Your task to perform on an android device: turn on wifi Image 0: 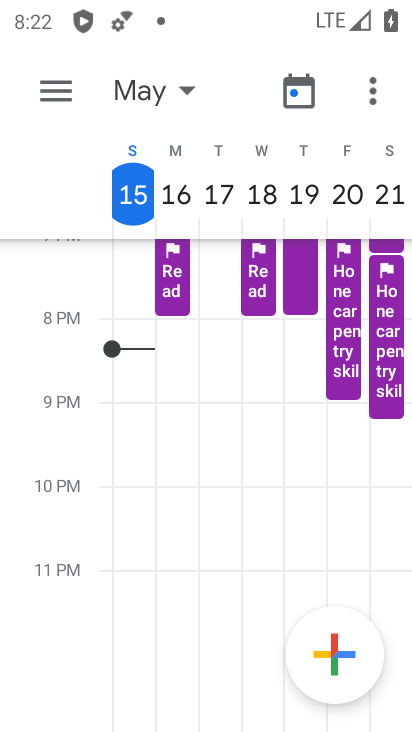
Step 0: press home button
Your task to perform on an android device: turn on wifi Image 1: 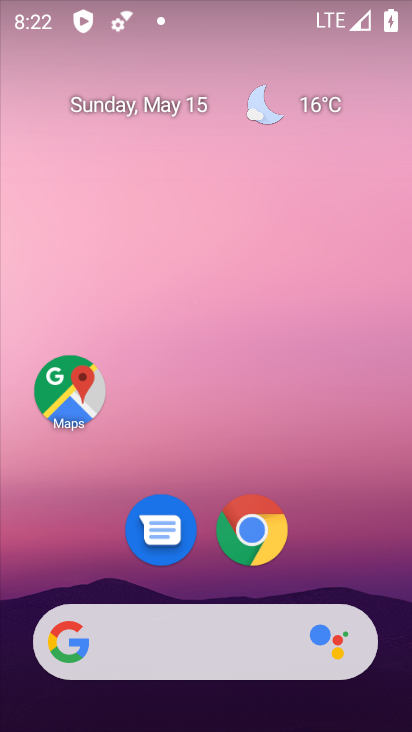
Step 1: drag from (202, 724) to (202, 211)
Your task to perform on an android device: turn on wifi Image 2: 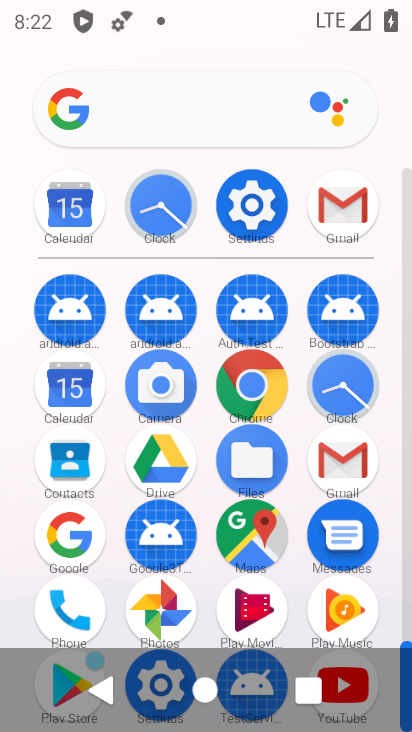
Step 2: click (244, 206)
Your task to perform on an android device: turn on wifi Image 3: 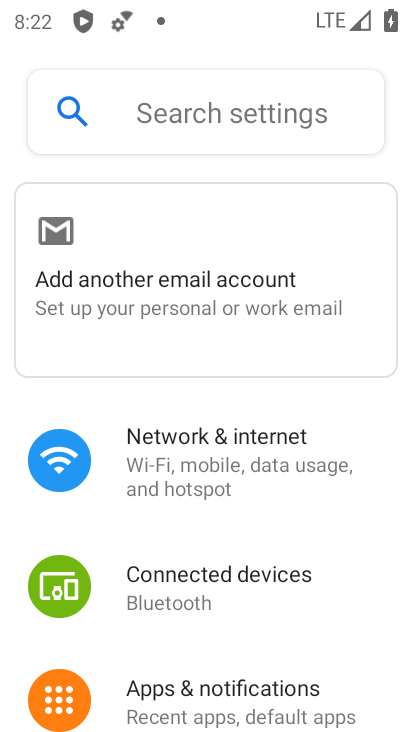
Step 3: click (171, 454)
Your task to perform on an android device: turn on wifi Image 4: 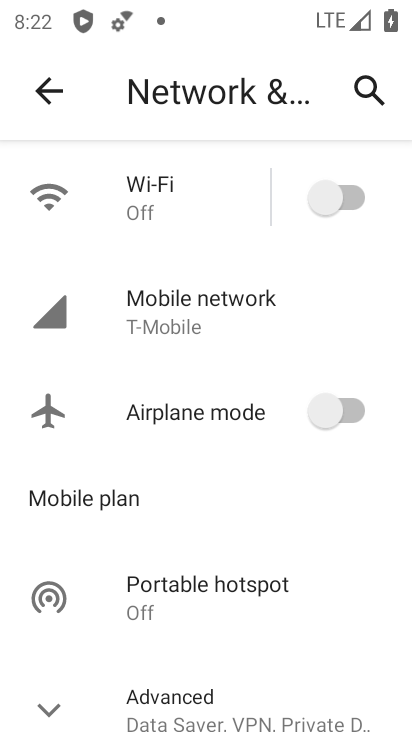
Step 4: click (361, 196)
Your task to perform on an android device: turn on wifi Image 5: 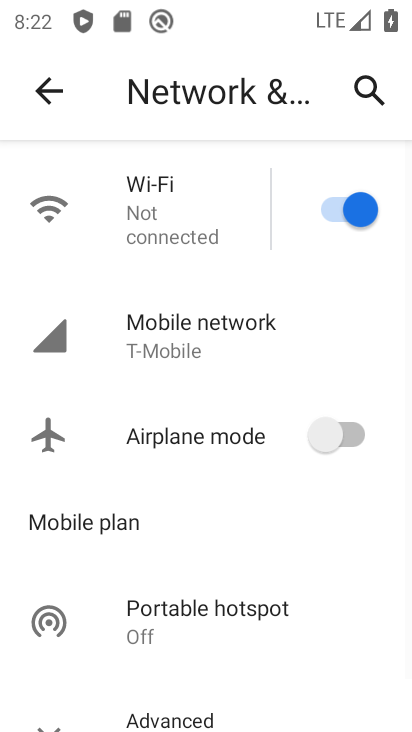
Step 5: task complete